Your task to perform on an android device: Open calendar and show me the second week of next month Image 0: 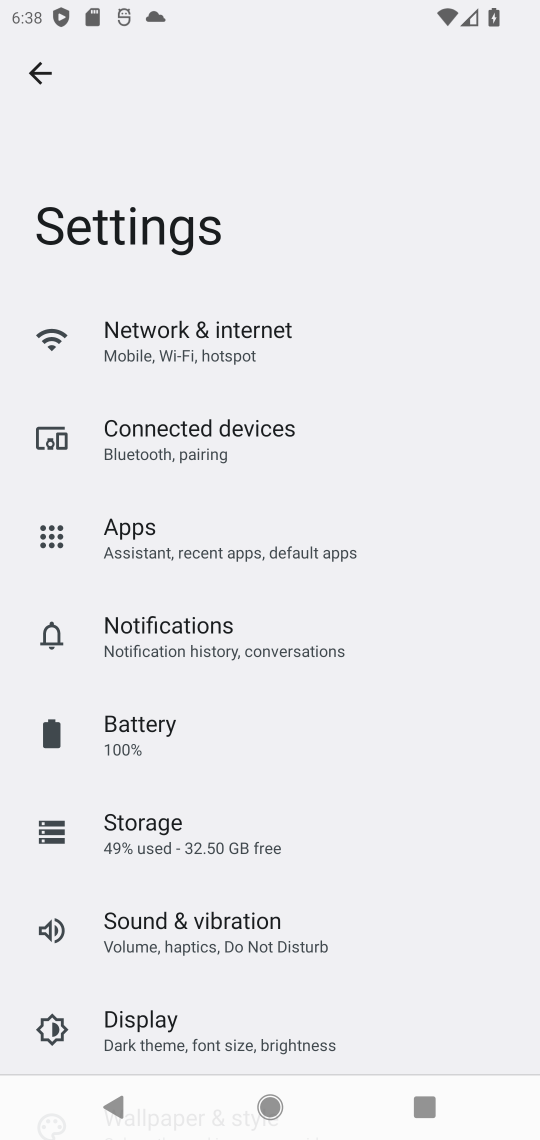
Step 0: click (30, 87)
Your task to perform on an android device: Open calendar and show me the second week of next month Image 1: 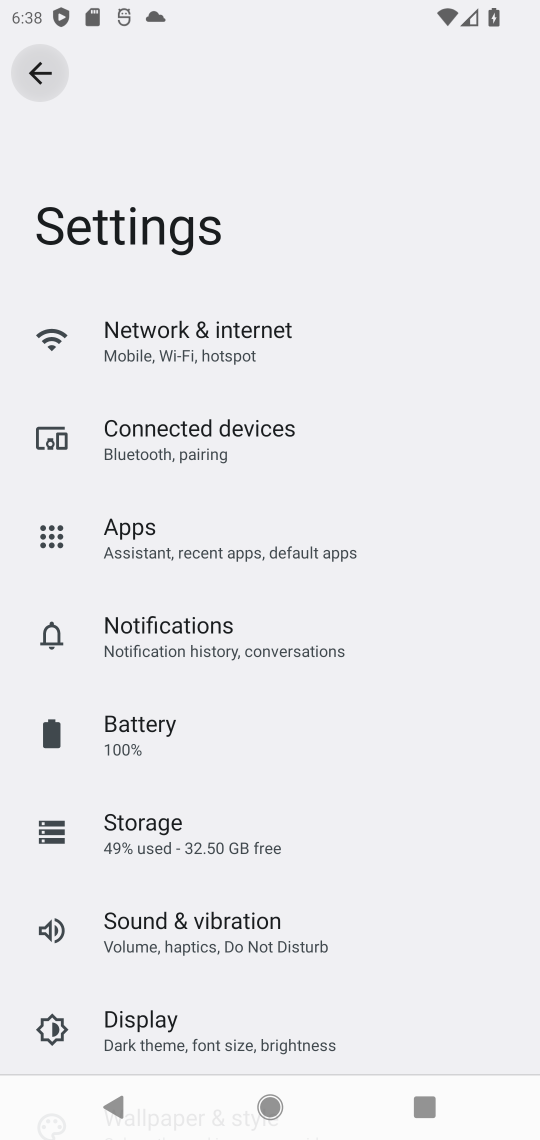
Step 1: click (38, 76)
Your task to perform on an android device: Open calendar and show me the second week of next month Image 2: 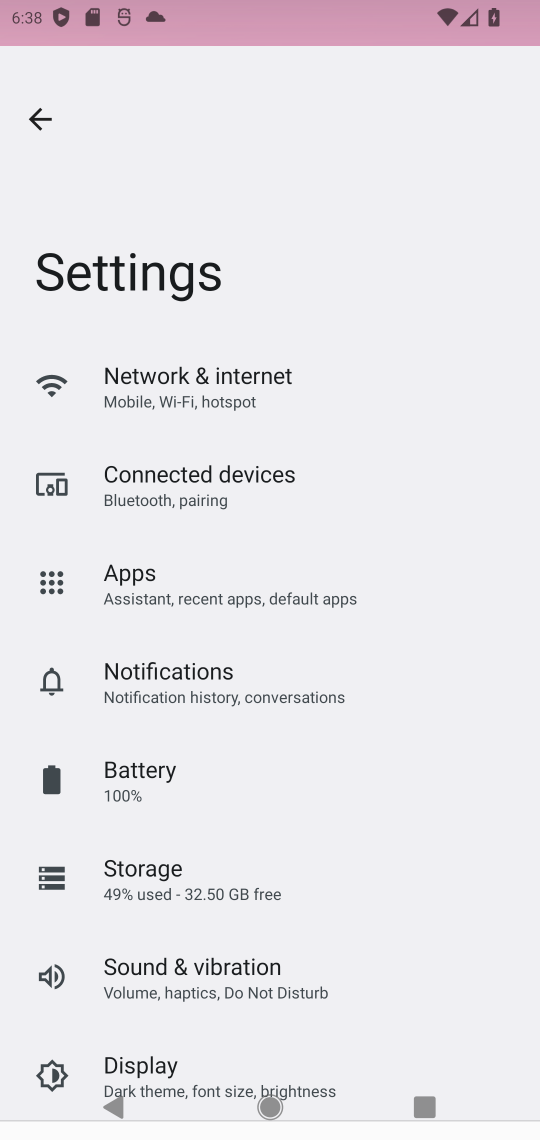
Step 2: click (45, 75)
Your task to perform on an android device: Open calendar and show me the second week of next month Image 3: 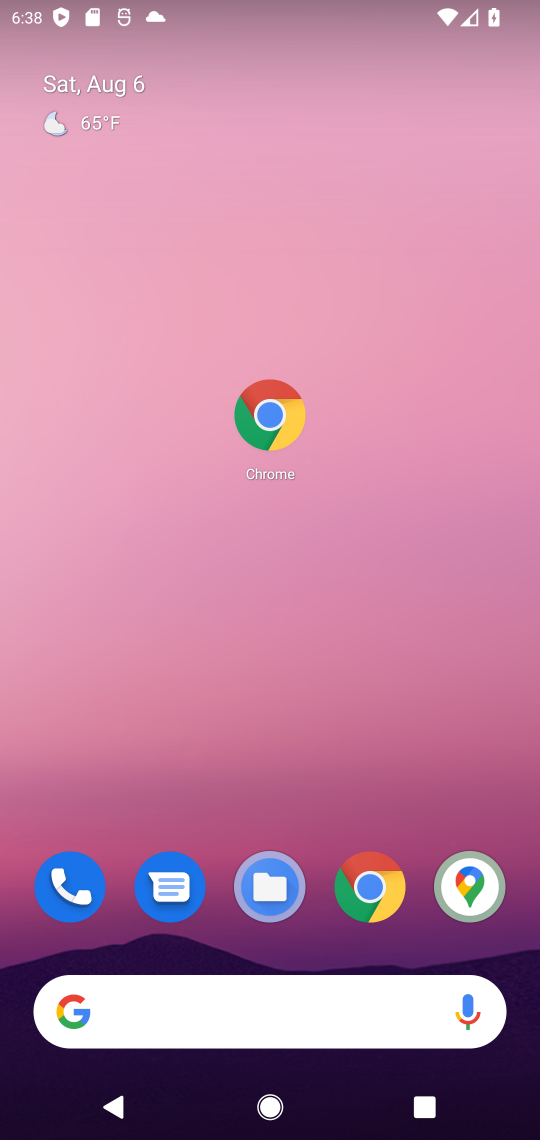
Step 3: drag from (265, 628) to (222, 296)
Your task to perform on an android device: Open calendar and show me the second week of next month Image 4: 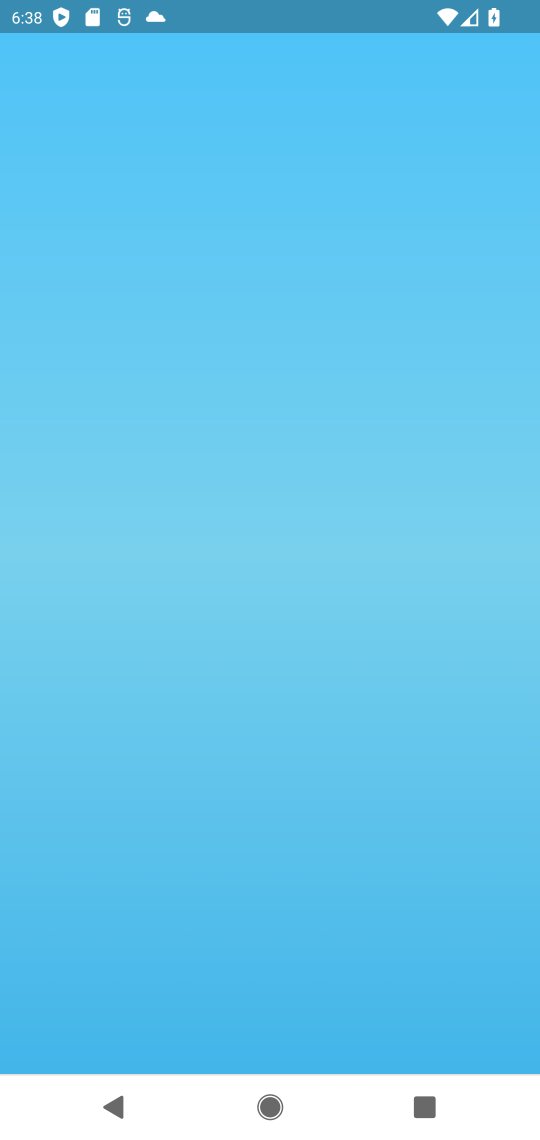
Step 4: drag from (397, 826) to (342, 220)
Your task to perform on an android device: Open calendar and show me the second week of next month Image 5: 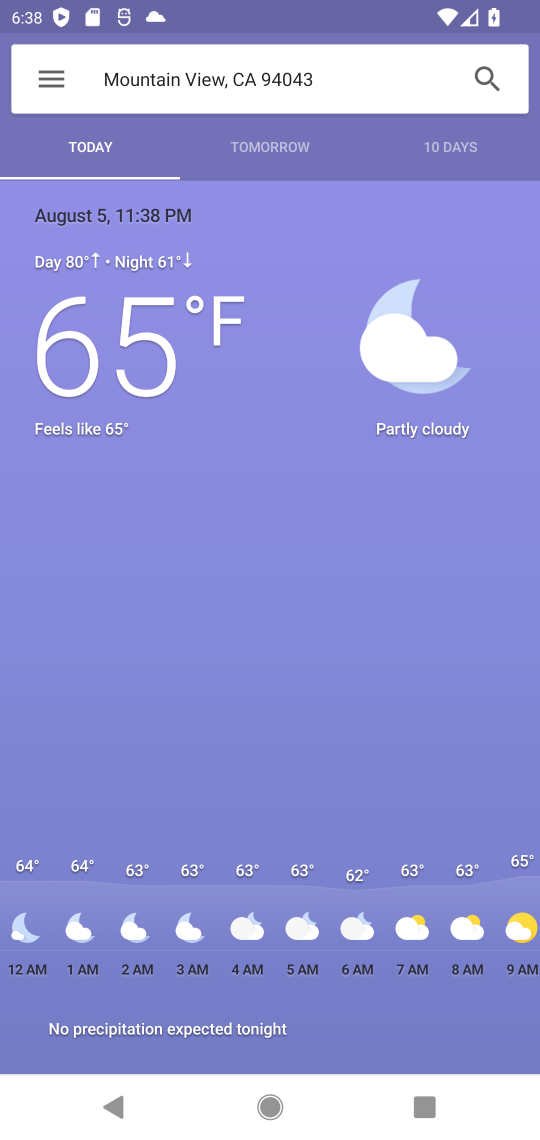
Step 5: press back button
Your task to perform on an android device: Open calendar and show me the second week of next month Image 6: 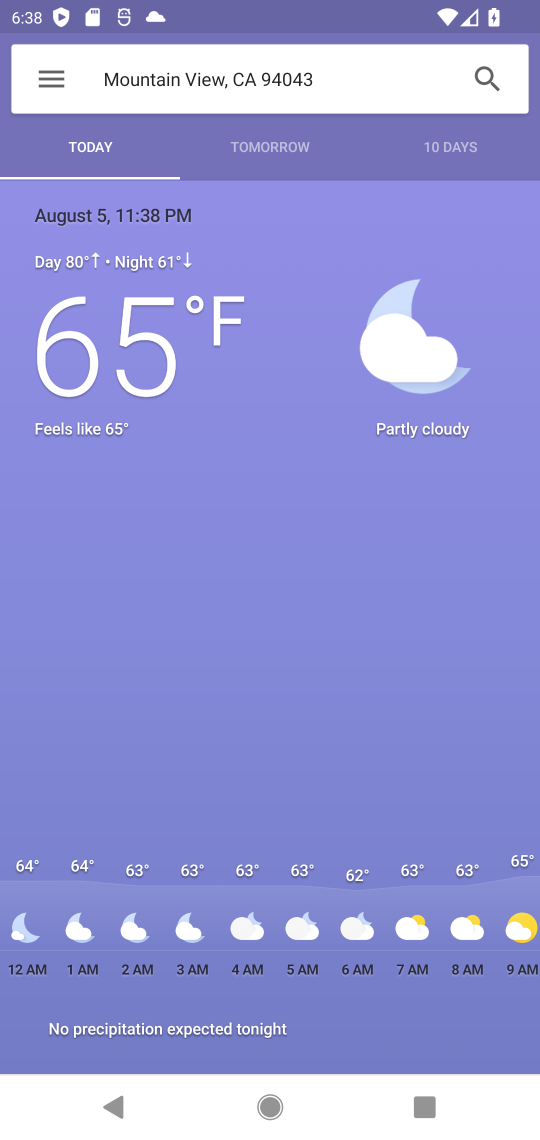
Step 6: press back button
Your task to perform on an android device: Open calendar and show me the second week of next month Image 7: 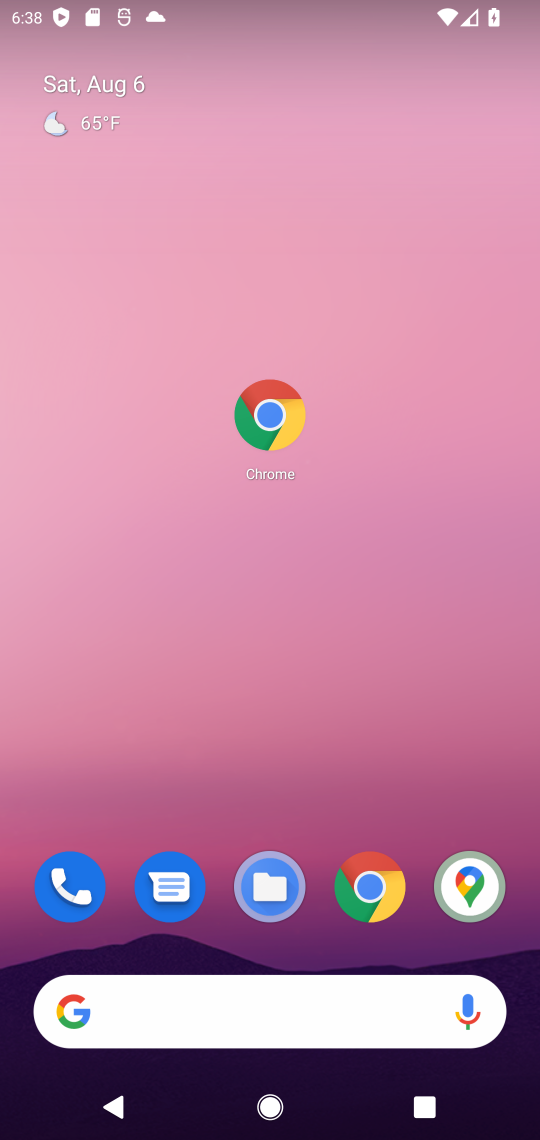
Step 7: press back button
Your task to perform on an android device: Open calendar and show me the second week of next month Image 8: 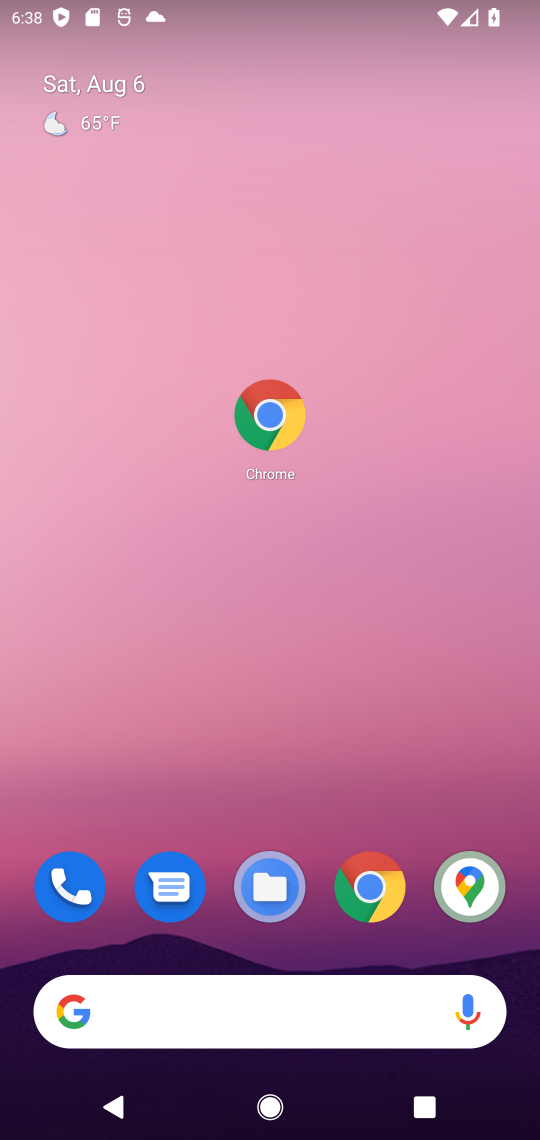
Step 8: press back button
Your task to perform on an android device: Open calendar and show me the second week of next month Image 9: 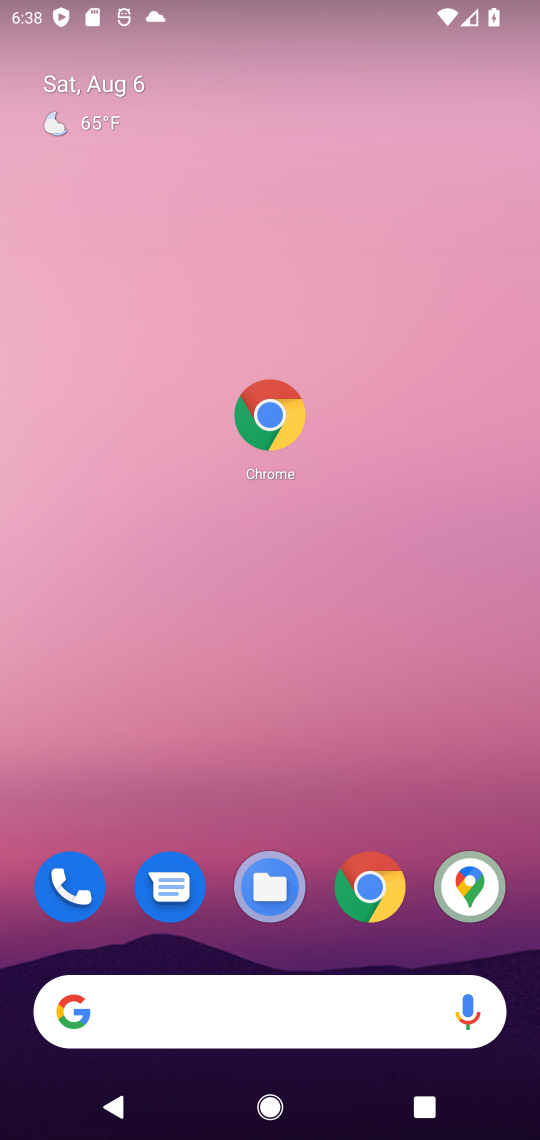
Step 9: press back button
Your task to perform on an android device: Open calendar and show me the second week of next month Image 10: 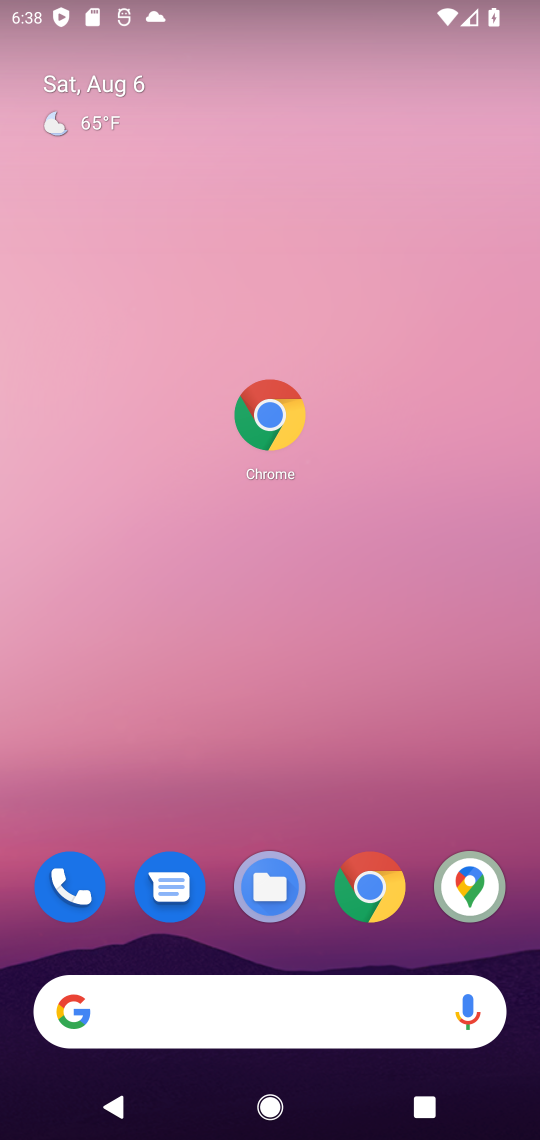
Step 10: drag from (419, 933) to (327, 172)
Your task to perform on an android device: Open calendar and show me the second week of next month Image 11: 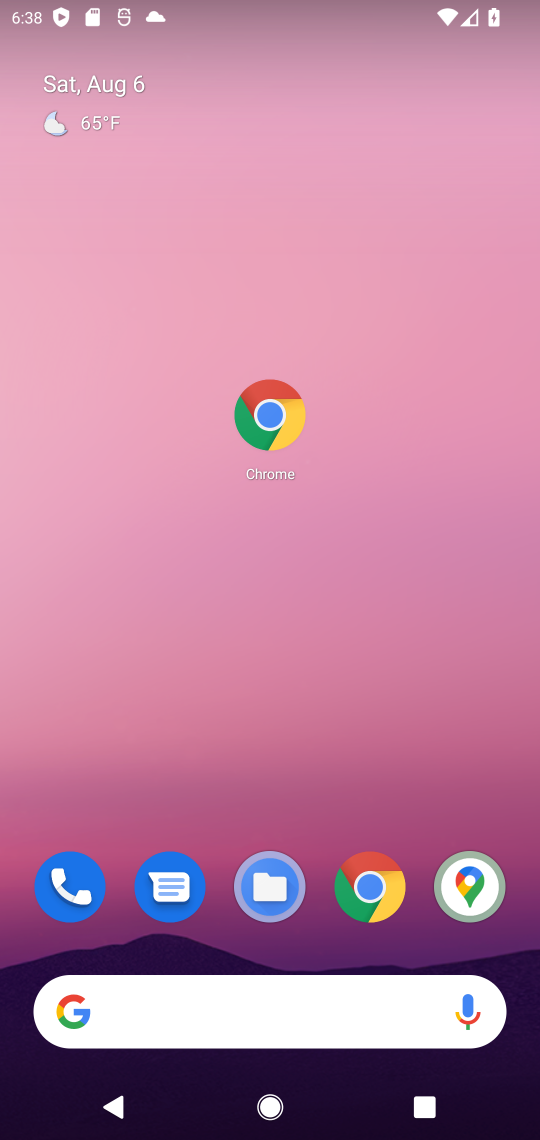
Step 11: drag from (293, 397) to (288, 128)
Your task to perform on an android device: Open calendar and show me the second week of next month Image 12: 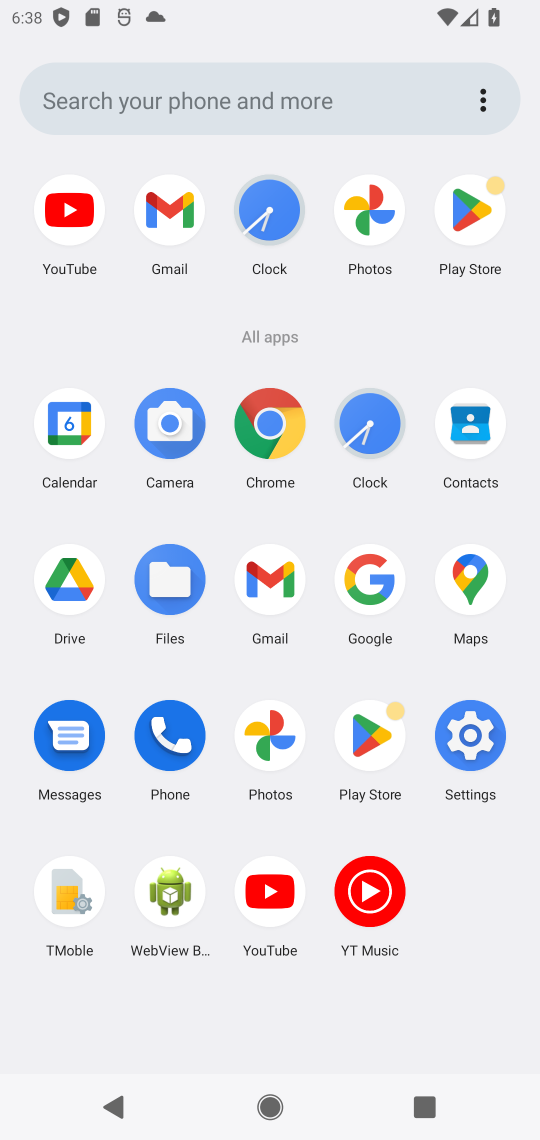
Step 12: click (81, 425)
Your task to perform on an android device: Open calendar and show me the second week of next month Image 13: 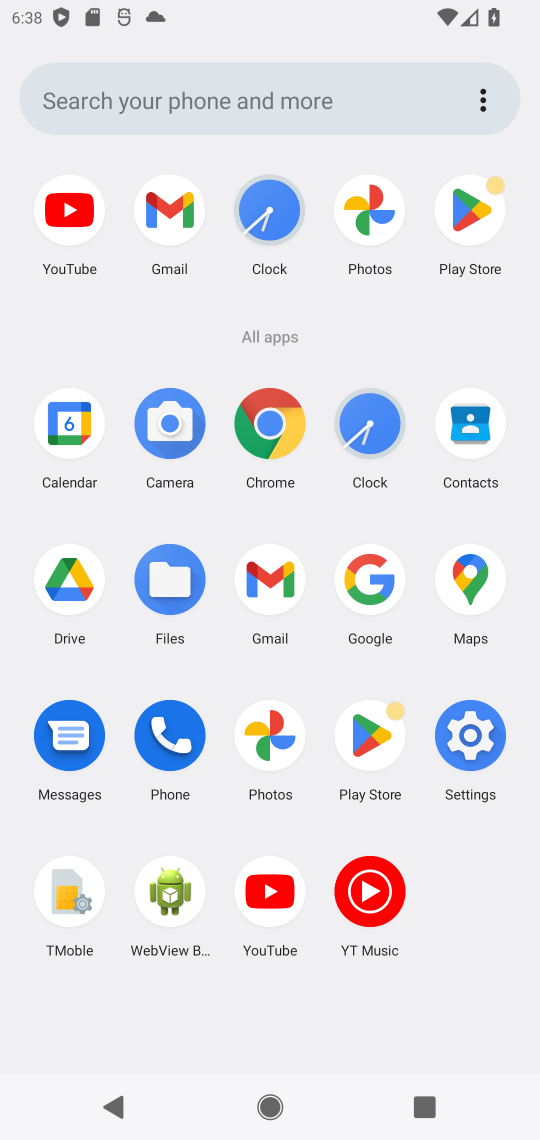
Step 13: click (71, 421)
Your task to perform on an android device: Open calendar and show me the second week of next month Image 14: 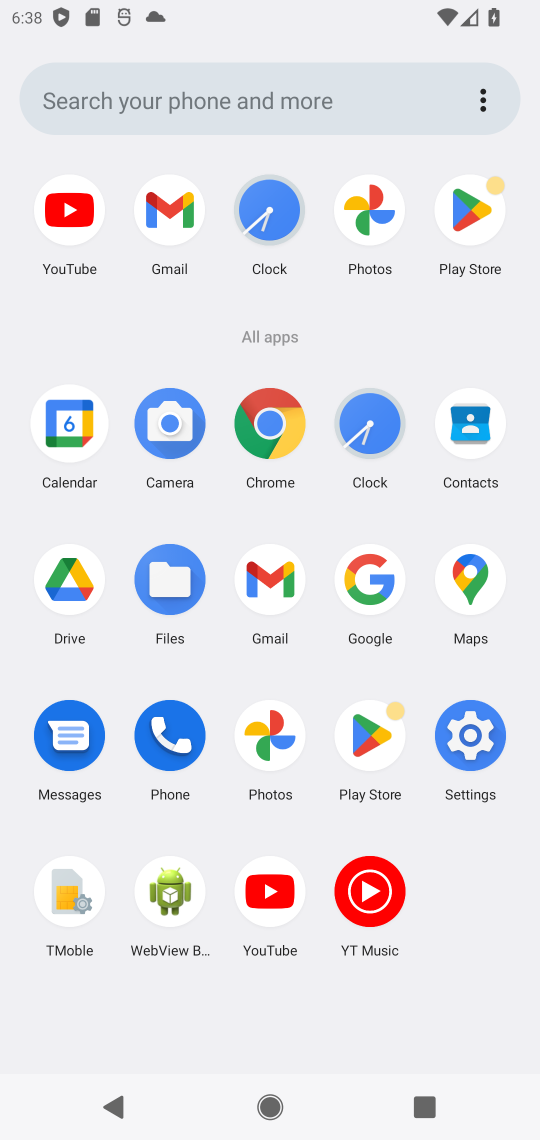
Step 14: click (56, 425)
Your task to perform on an android device: Open calendar and show me the second week of next month Image 15: 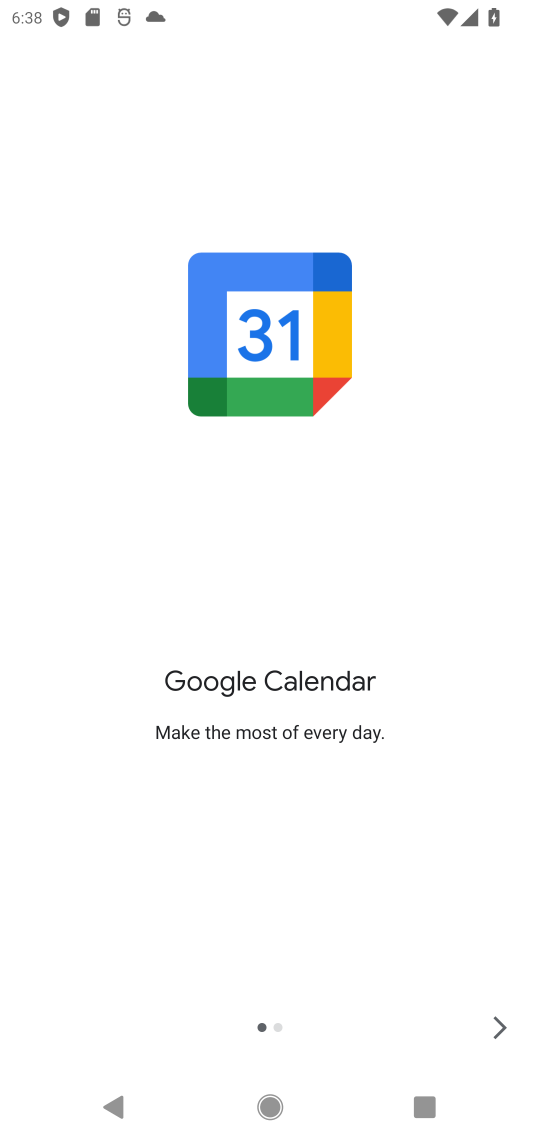
Step 15: click (496, 1023)
Your task to perform on an android device: Open calendar and show me the second week of next month Image 16: 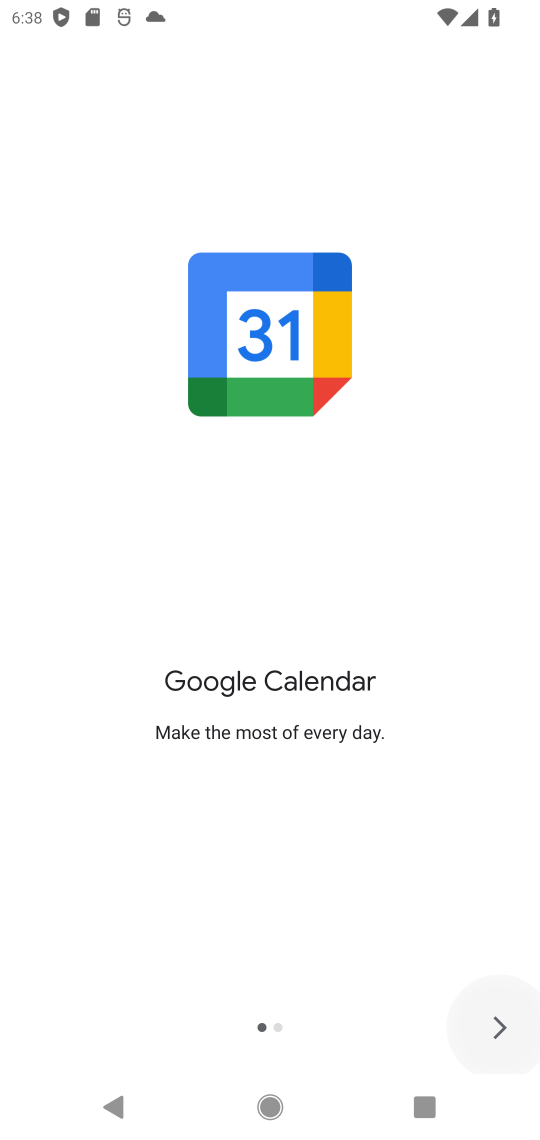
Step 16: click (496, 1023)
Your task to perform on an android device: Open calendar and show me the second week of next month Image 17: 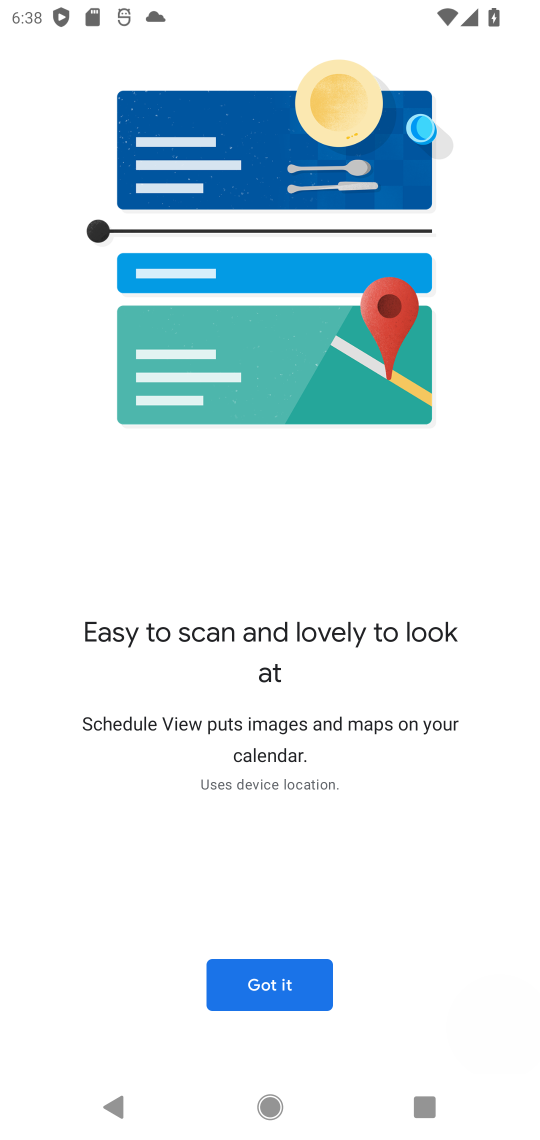
Step 17: click (272, 982)
Your task to perform on an android device: Open calendar and show me the second week of next month Image 18: 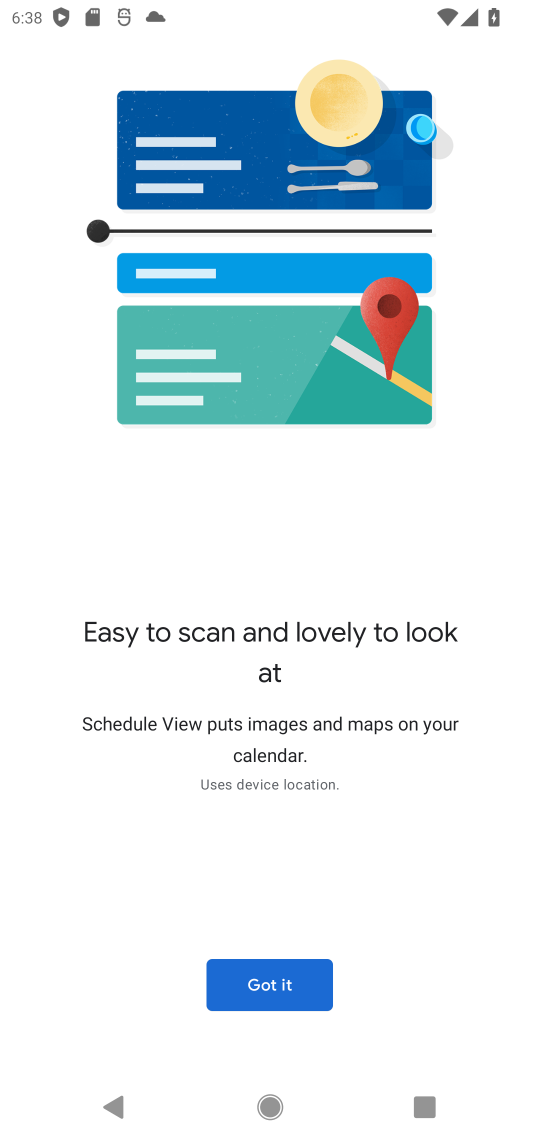
Step 18: click (272, 982)
Your task to perform on an android device: Open calendar and show me the second week of next month Image 19: 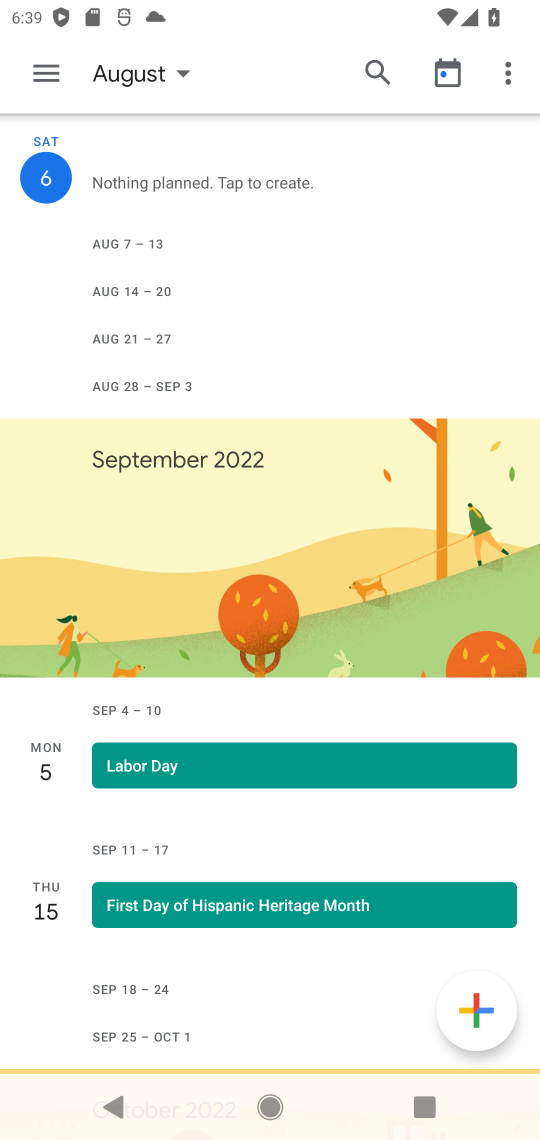
Step 19: drag from (179, 77) to (259, 681)
Your task to perform on an android device: Open calendar and show me the second week of next month Image 20: 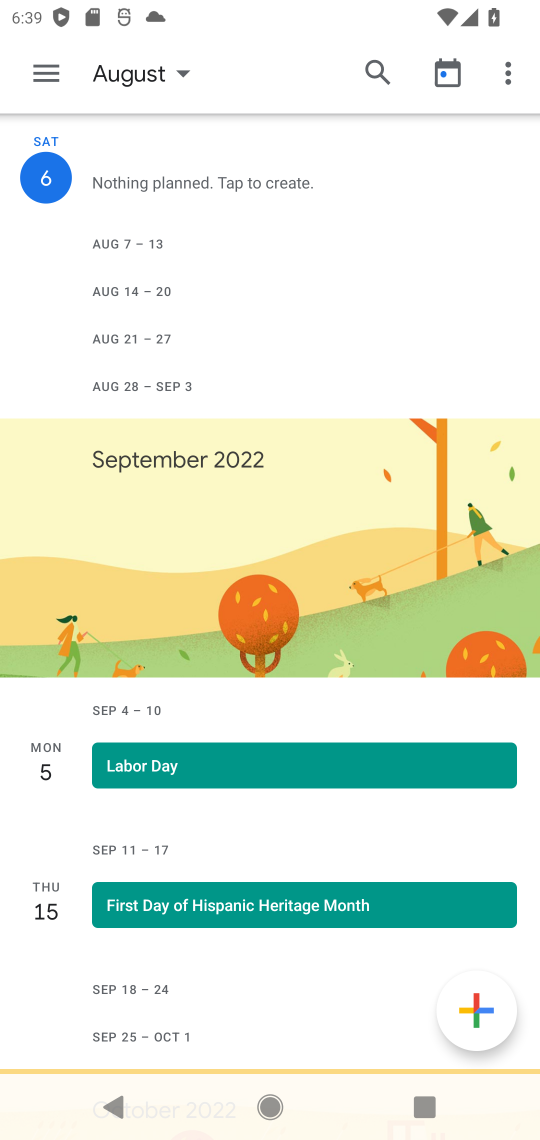
Step 20: click (182, 84)
Your task to perform on an android device: Open calendar and show me the second week of next month Image 21: 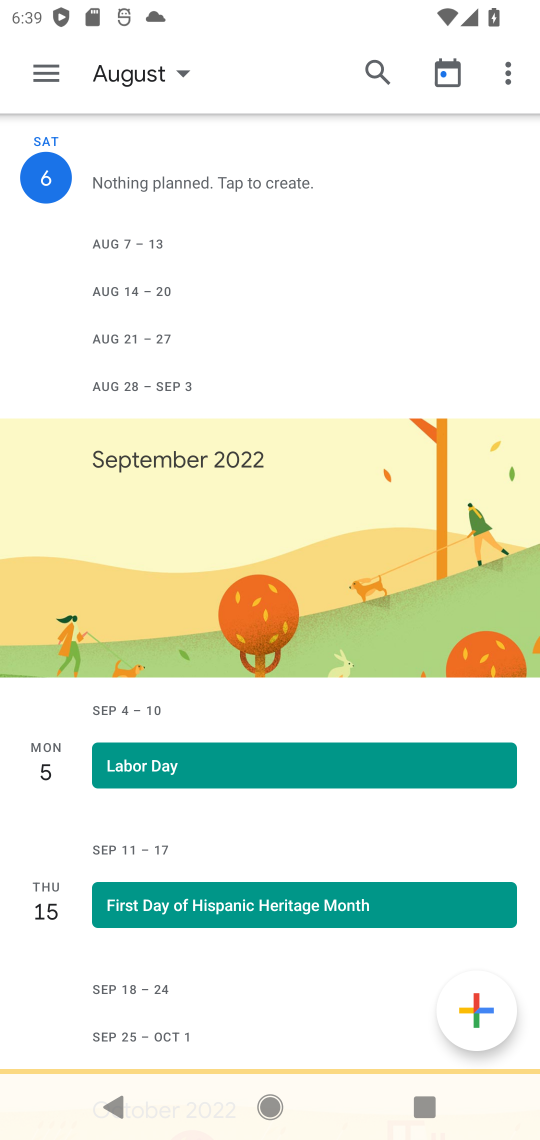
Step 21: click (183, 71)
Your task to perform on an android device: Open calendar and show me the second week of next month Image 22: 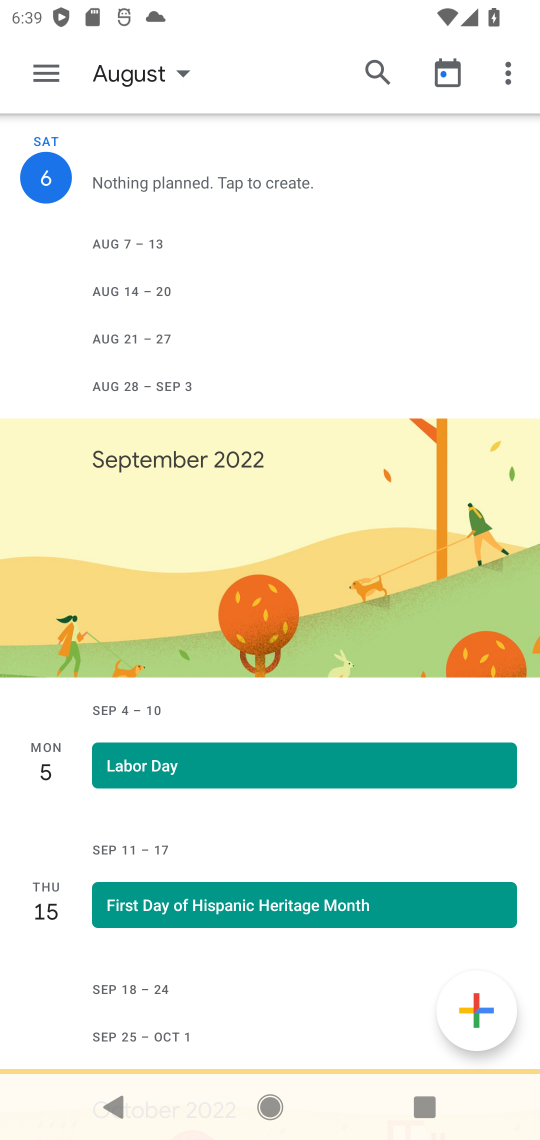
Step 22: click (183, 71)
Your task to perform on an android device: Open calendar and show me the second week of next month Image 23: 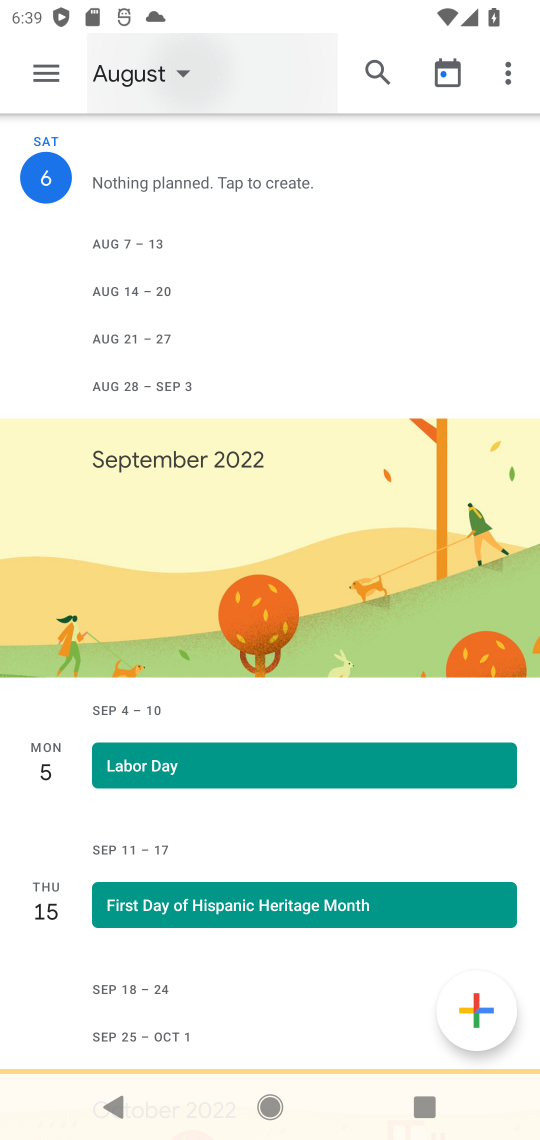
Step 23: click (185, 70)
Your task to perform on an android device: Open calendar and show me the second week of next month Image 24: 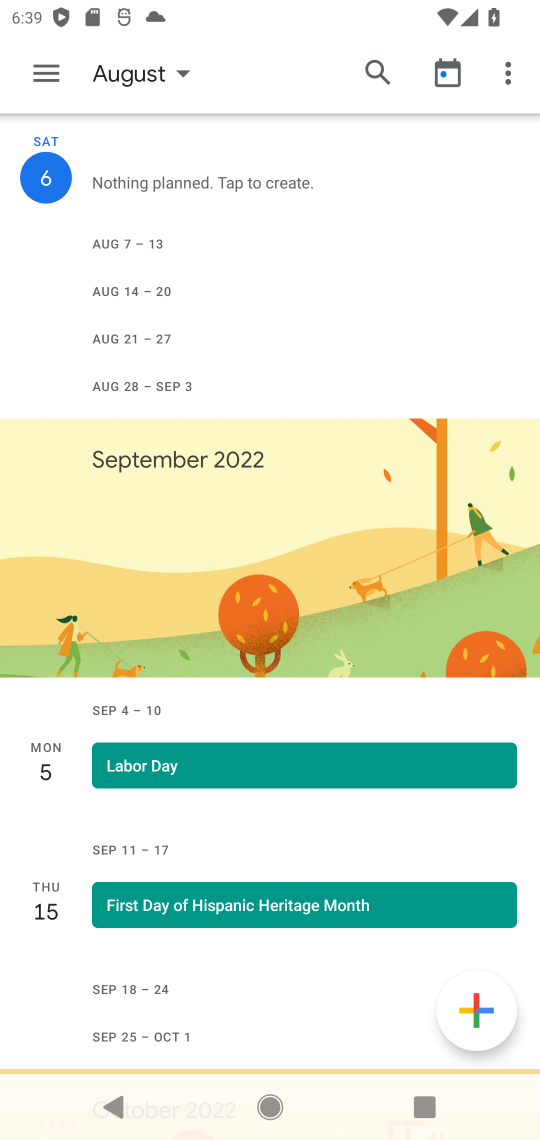
Step 24: drag from (478, 174) to (8, 192)
Your task to perform on an android device: Open calendar and show me the second week of next month Image 25: 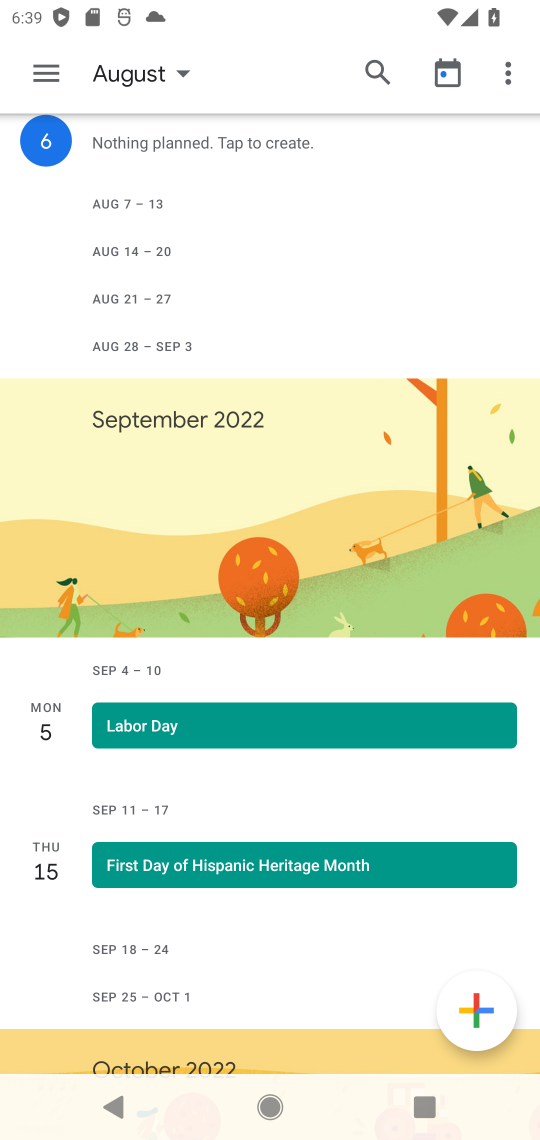
Step 25: click (167, 69)
Your task to perform on an android device: Open calendar and show me the second week of next month Image 26: 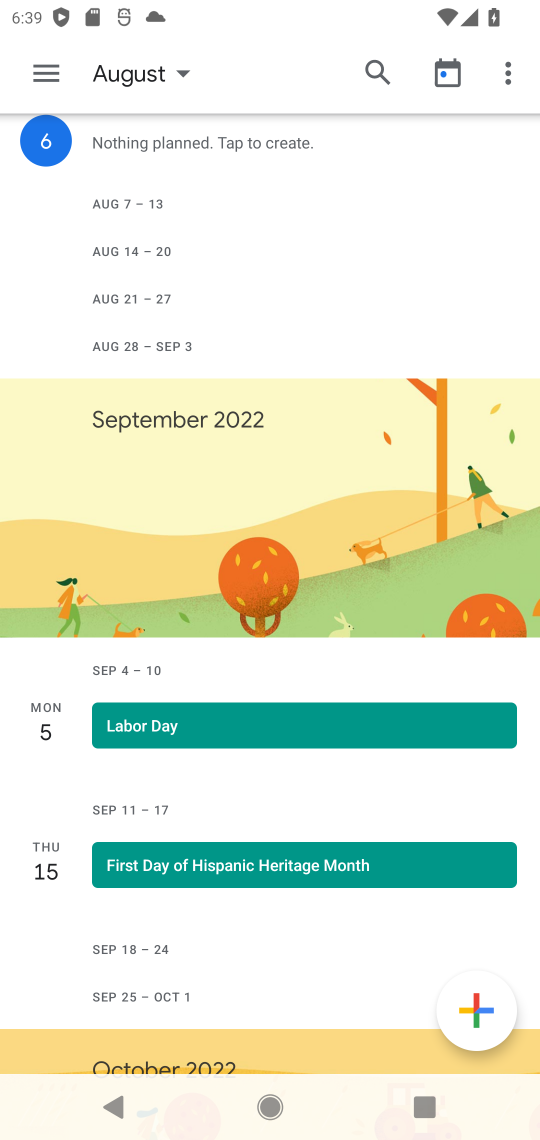
Step 26: click (182, 78)
Your task to perform on an android device: Open calendar and show me the second week of next month Image 27: 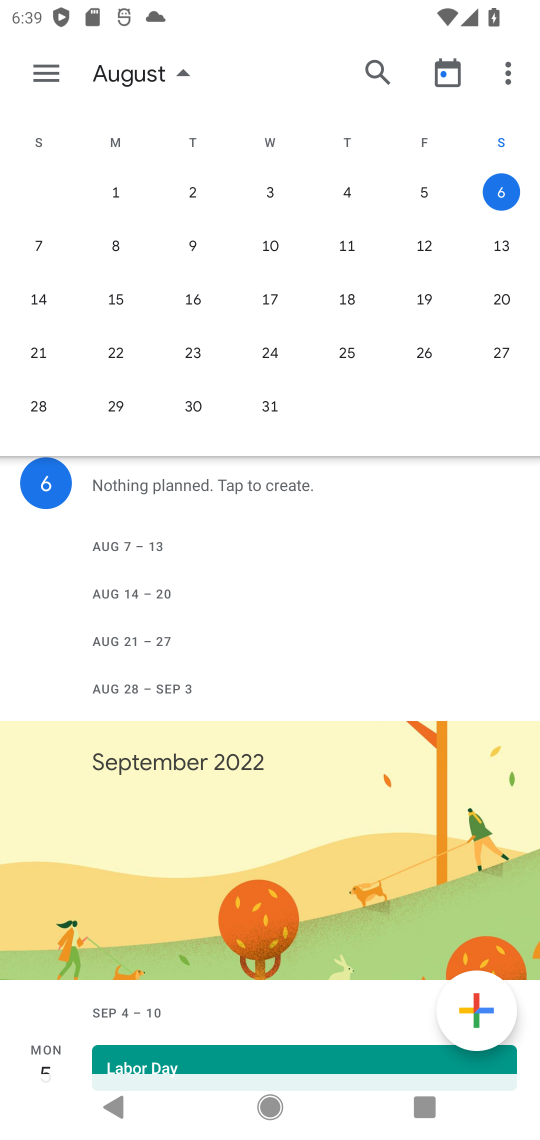
Step 27: drag from (312, 252) to (80, 211)
Your task to perform on an android device: Open calendar and show me the second week of next month Image 28: 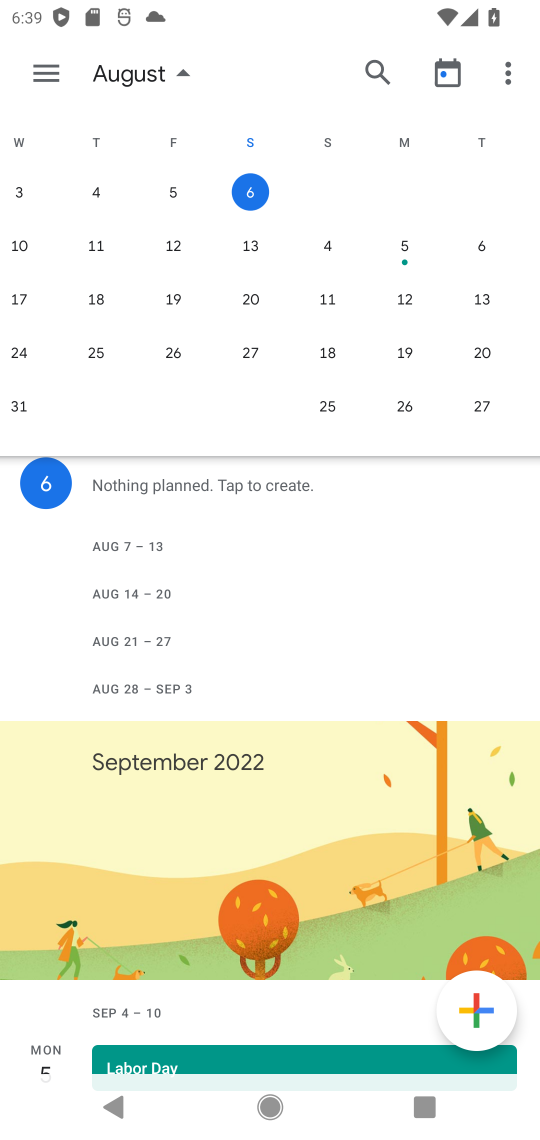
Step 28: drag from (284, 189) to (0, 269)
Your task to perform on an android device: Open calendar and show me the second week of next month Image 29: 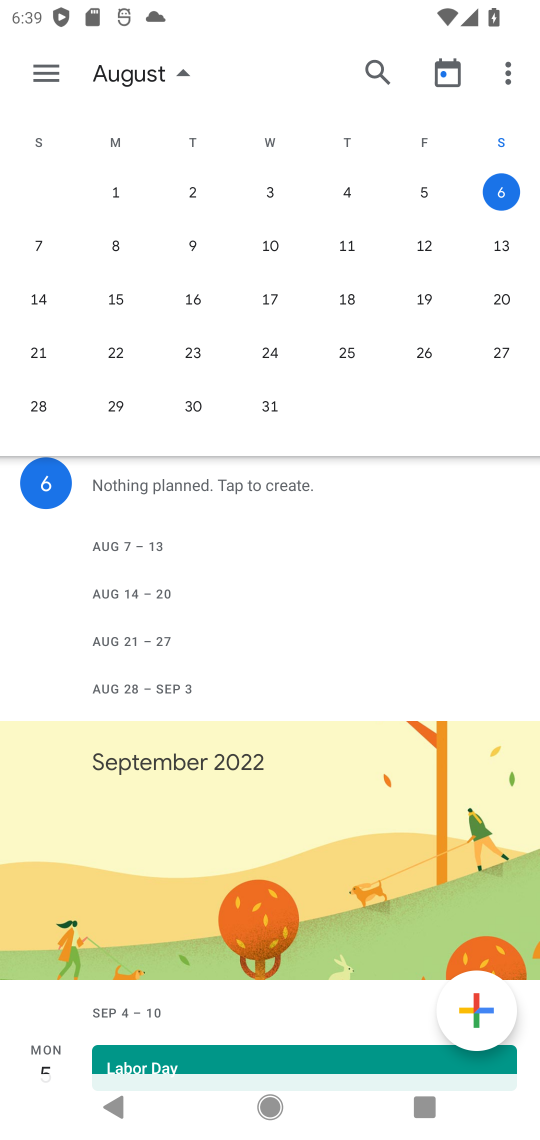
Step 29: drag from (380, 186) to (2, 257)
Your task to perform on an android device: Open calendar and show me the second week of next month Image 30: 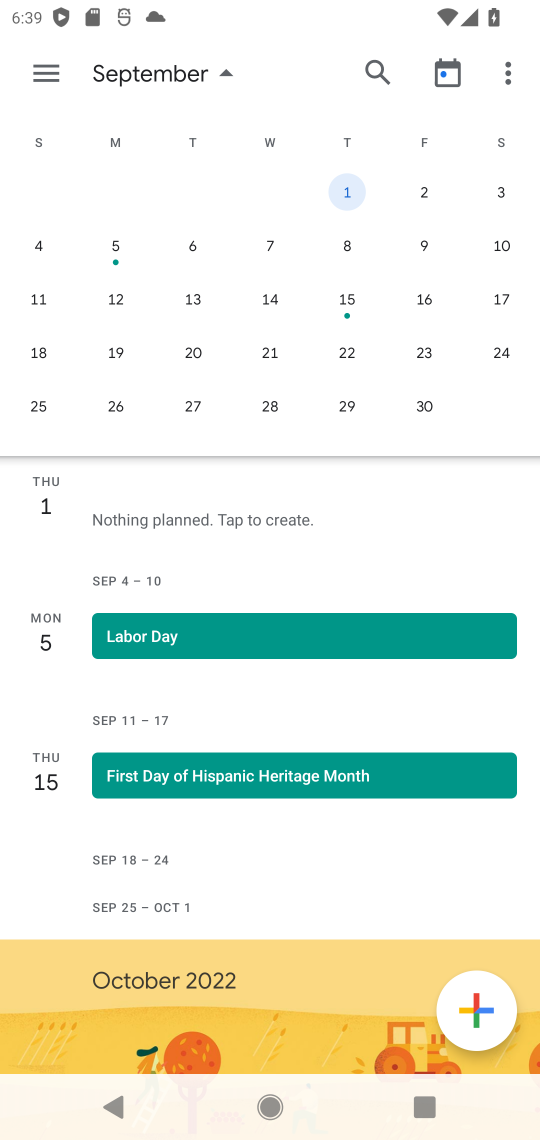
Step 30: click (342, 238)
Your task to perform on an android device: Open calendar and show me the second week of next month Image 31: 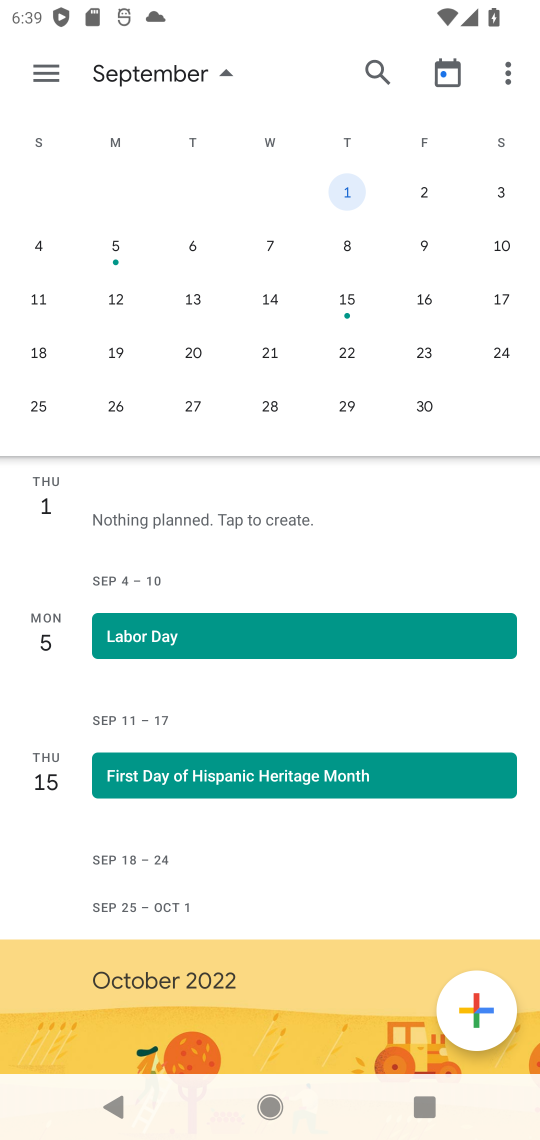
Step 31: click (342, 240)
Your task to perform on an android device: Open calendar and show me the second week of next month Image 32: 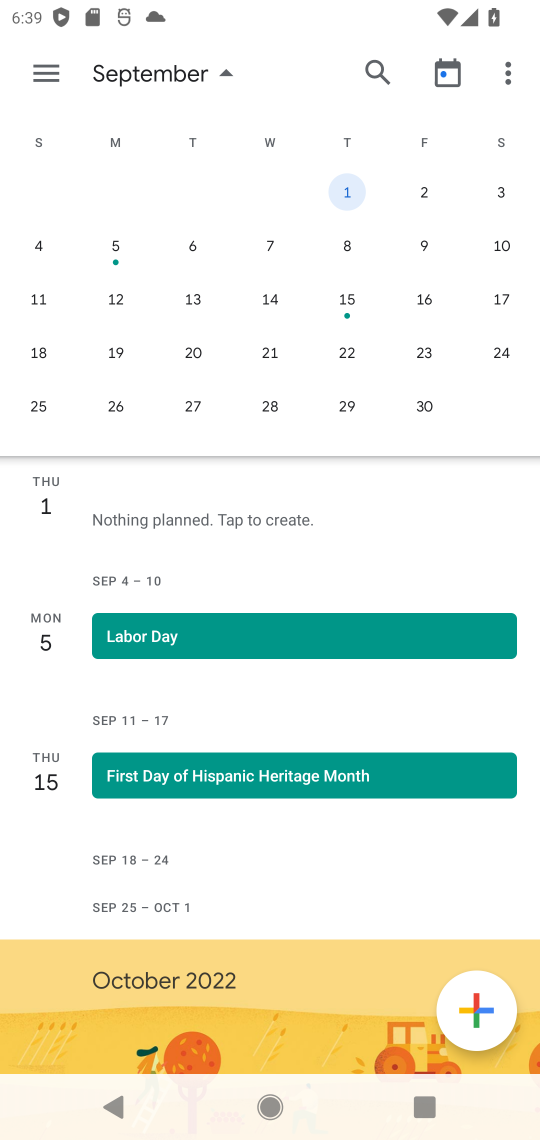
Step 32: click (427, 252)
Your task to perform on an android device: Open calendar and show me the second week of next month Image 33: 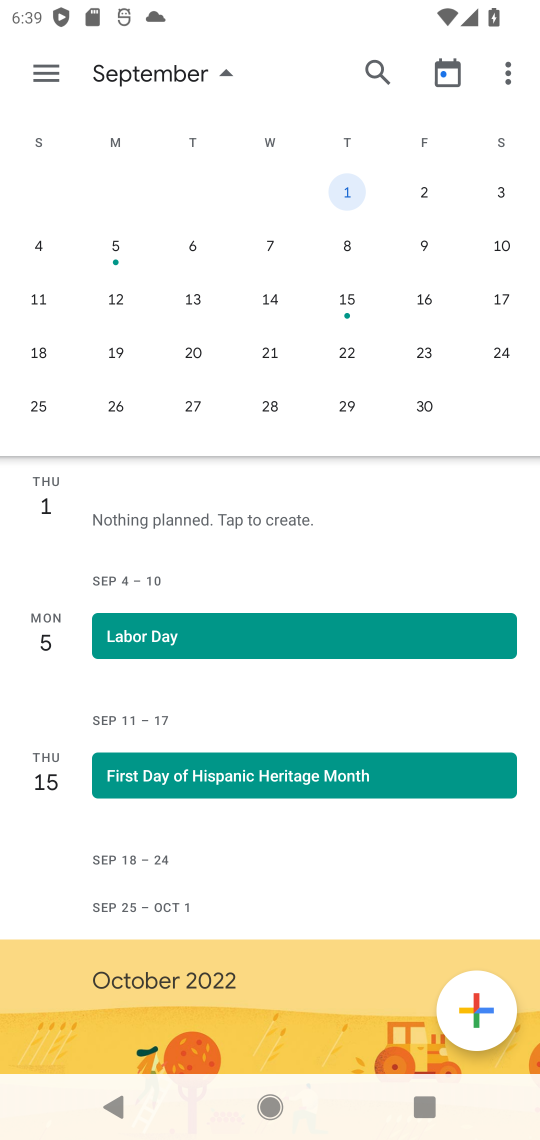
Step 33: click (424, 245)
Your task to perform on an android device: Open calendar and show me the second week of next month Image 34: 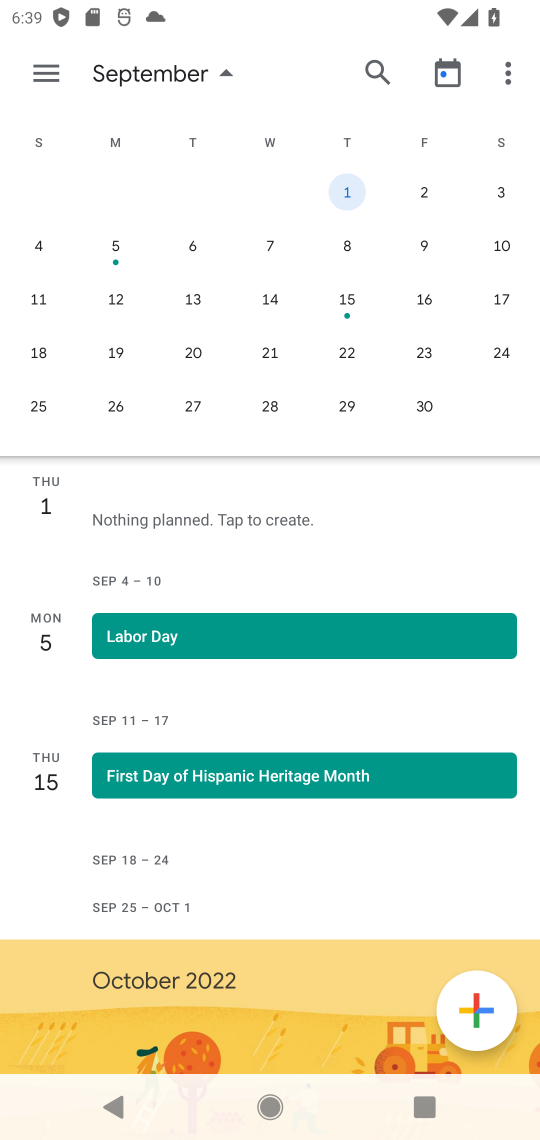
Step 34: click (424, 245)
Your task to perform on an android device: Open calendar and show me the second week of next month Image 35: 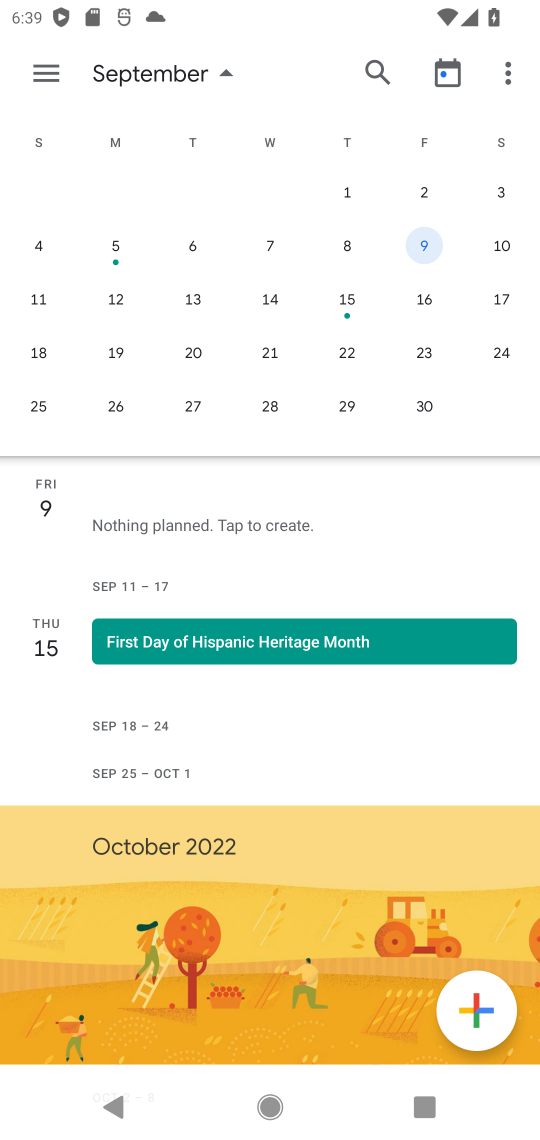
Step 35: task complete